Your task to perform on an android device: What's the weather going to be tomorrow? Image 0: 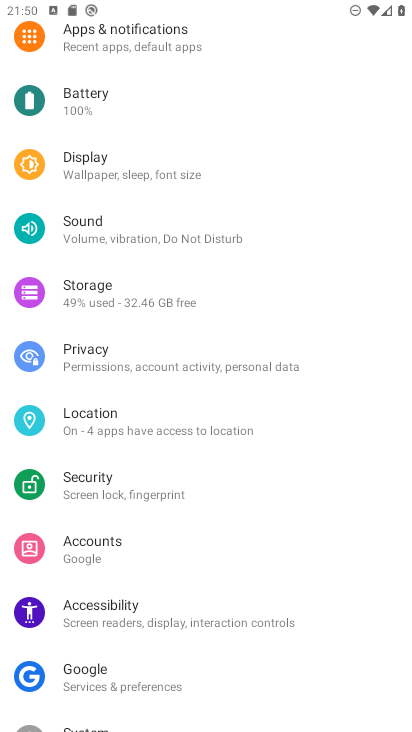
Step 0: press home button
Your task to perform on an android device: What's the weather going to be tomorrow? Image 1: 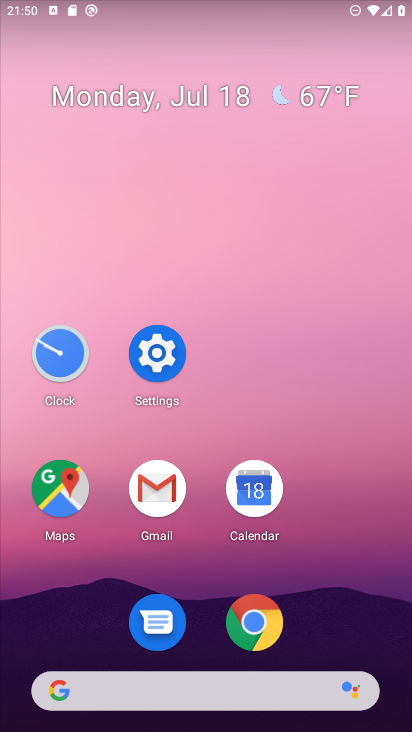
Step 1: click (318, 90)
Your task to perform on an android device: What's the weather going to be tomorrow? Image 2: 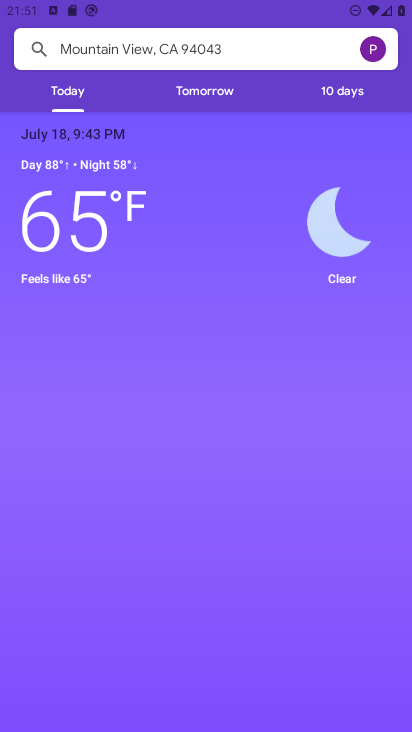
Step 2: click (208, 84)
Your task to perform on an android device: What's the weather going to be tomorrow? Image 3: 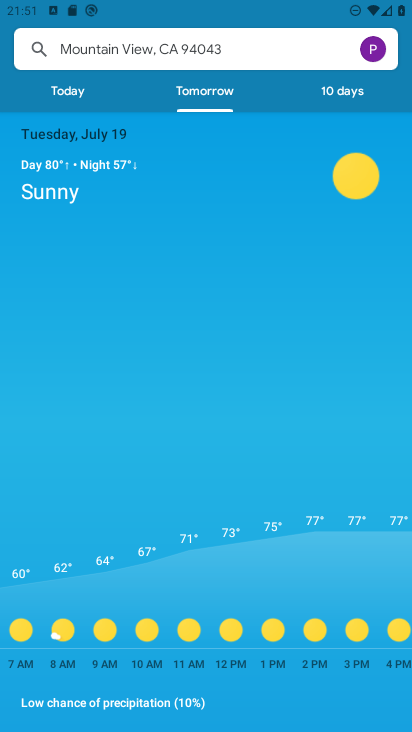
Step 3: task complete